Your task to perform on an android device: Open network settings Image 0: 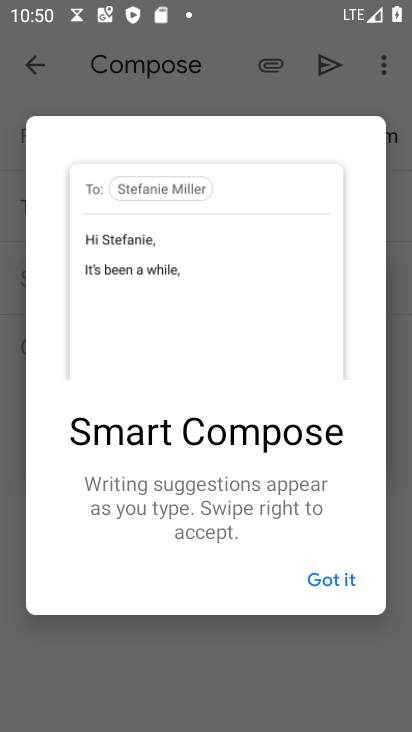
Step 0: press home button
Your task to perform on an android device: Open network settings Image 1: 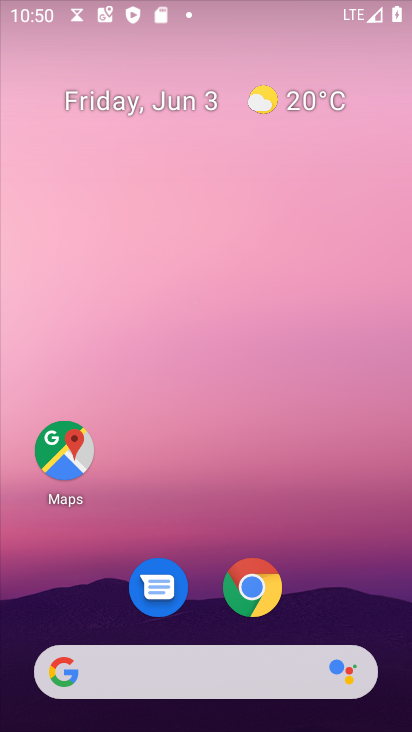
Step 1: drag from (367, 588) to (228, 53)
Your task to perform on an android device: Open network settings Image 2: 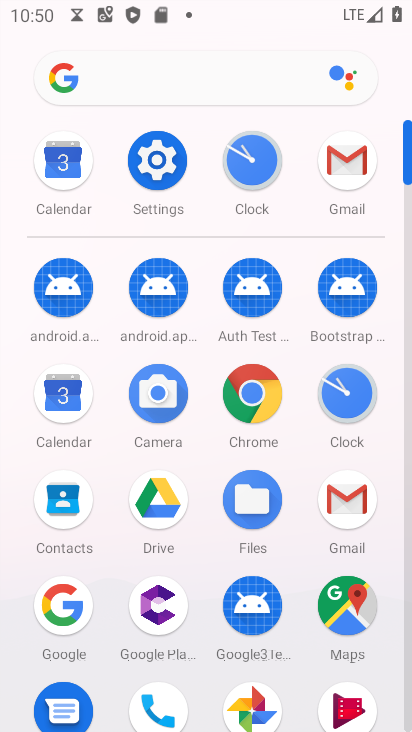
Step 2: click (133, 155)
Your task to perform on an android device: Open network settings Image 3: 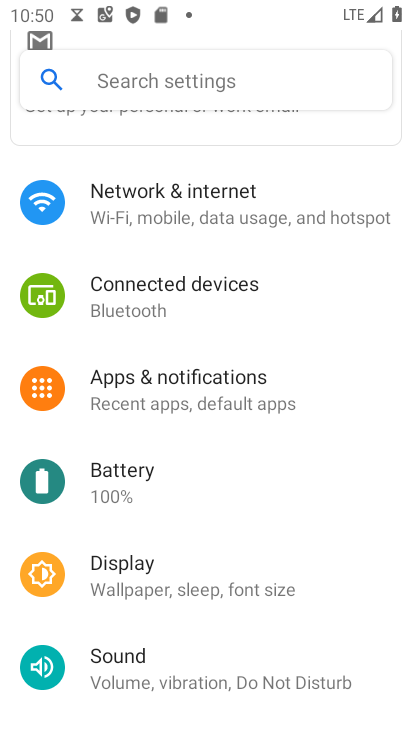
Step 3: click (177, 202)
Your task to perform on an android device: Open network settings Image 4: 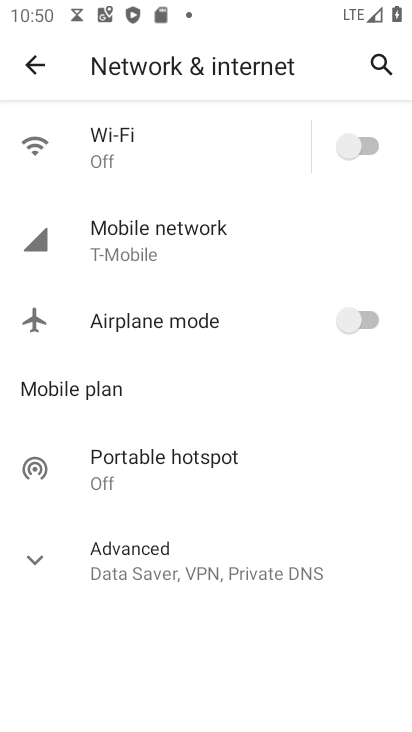
Step 4: task complete